Your task to perform on an android device: Open the calendar and show me this week's events? Image 0: 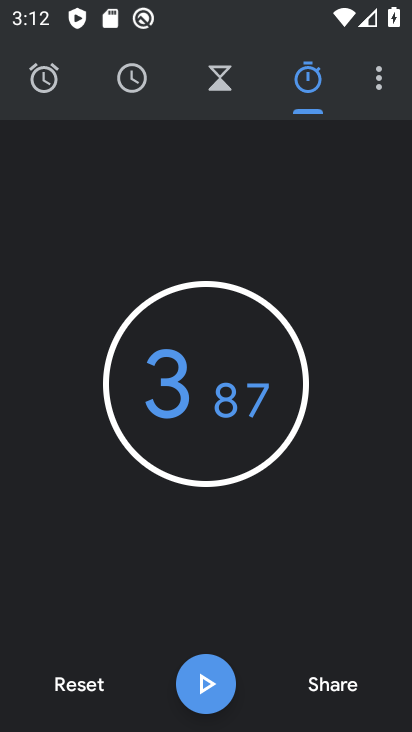
Step 0: press home button
Your task to perform on an android device: Open the calendar and show me this week's events? Image 1: 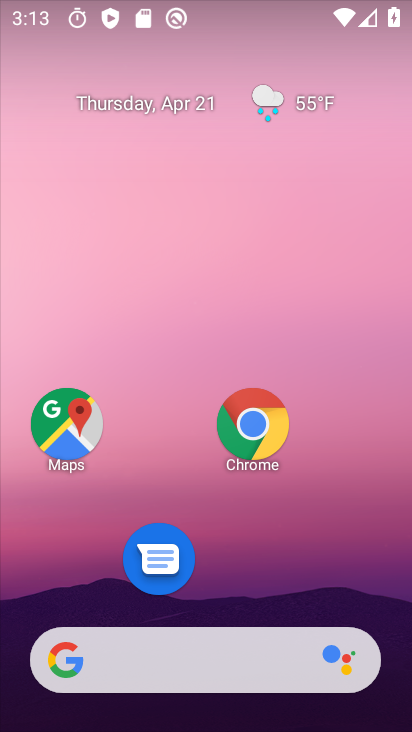
Step 1: drag from (244, 511) to (154, 70)
Your task to perform on an android device: Open the calendar and show me this week's events? Image 2: 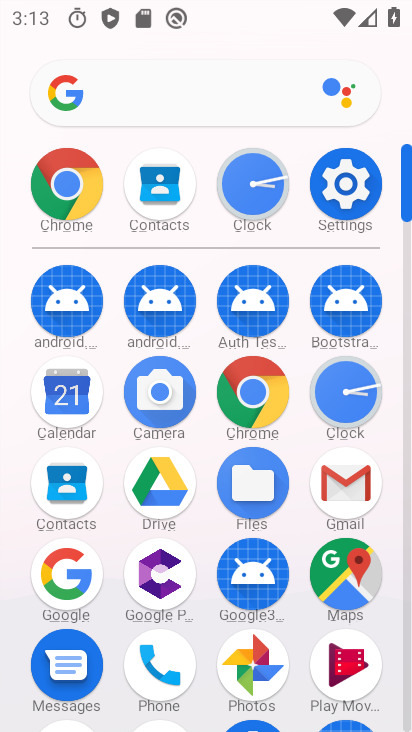
Step 2: click (70, 403)
Your task to perform on an android device: Open the calendar and show me this week's events? Image 3: 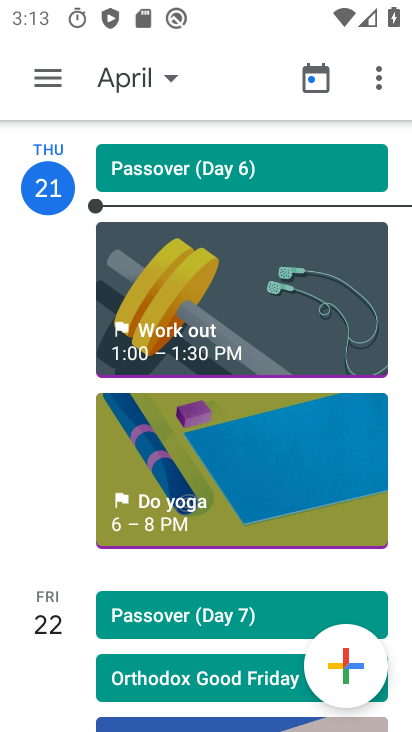
Step 3: click (164, 83)
Your task to perform on an android device: Open the calendar and show me this week's events? Image 4: 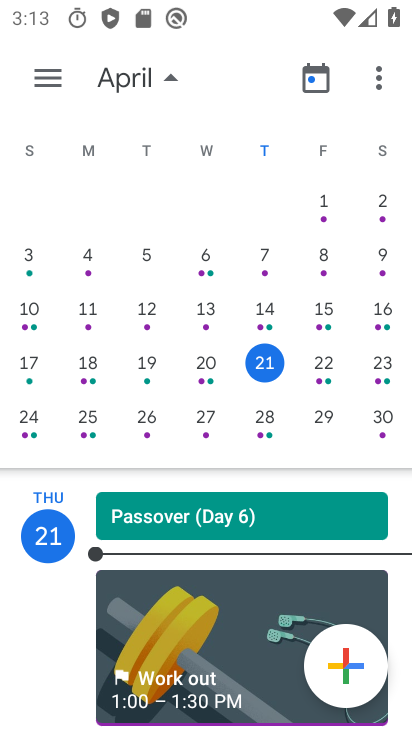
Step 4: drag from (379, 451) to (194, 435)
Your task to perform on an android device: Open the calendar and show me this week's events? Image 5: 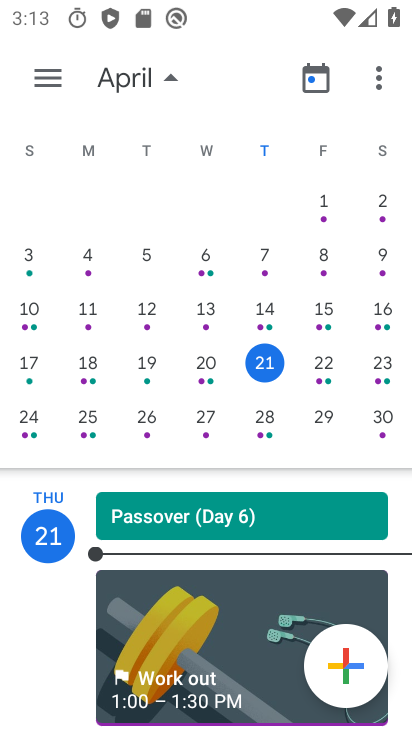
Step 5: click (146, 421)
Your task to perform on an android device: Open the calendar and show me this week's events? Image 6: 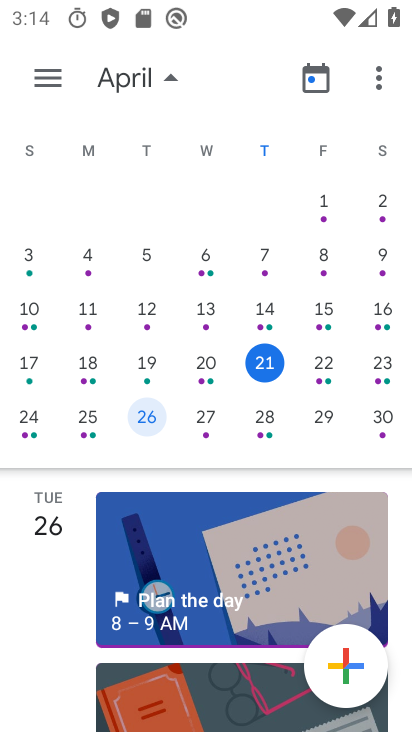
Step 6: task complete